Your task to perform on an android device: Open the map Image 0: 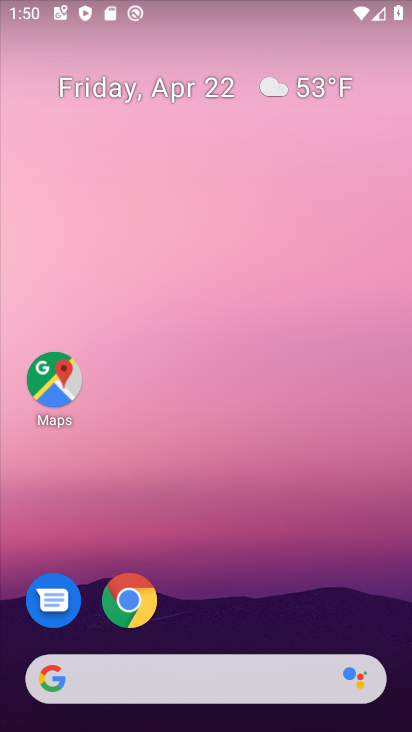
Step 0: drag from (229, 692) to (229, 205)
Your task to perform on an android device: Open the map Image 1: 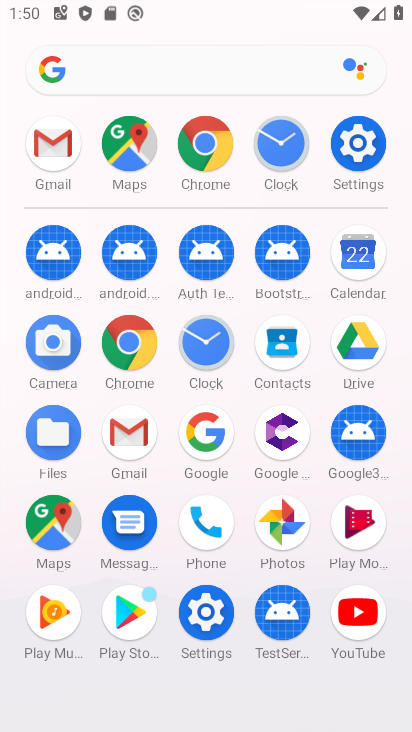
Step 1: click (130, 151)
Your task to perform on an android device: Open the map Image 2: 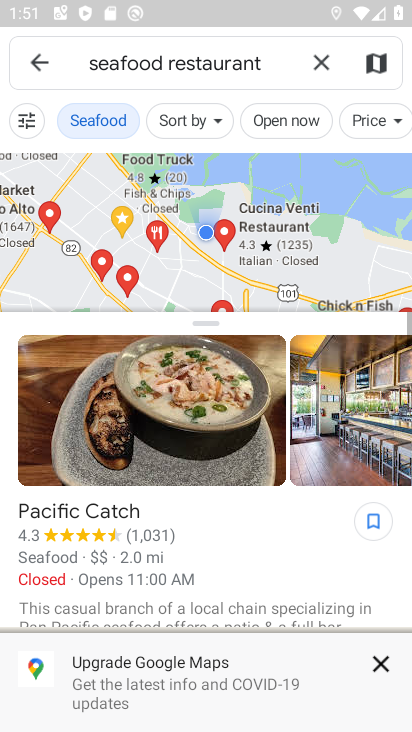
Step 2: task complete